Your task to perform on an android device: toggle improve location accuracy Image 0: 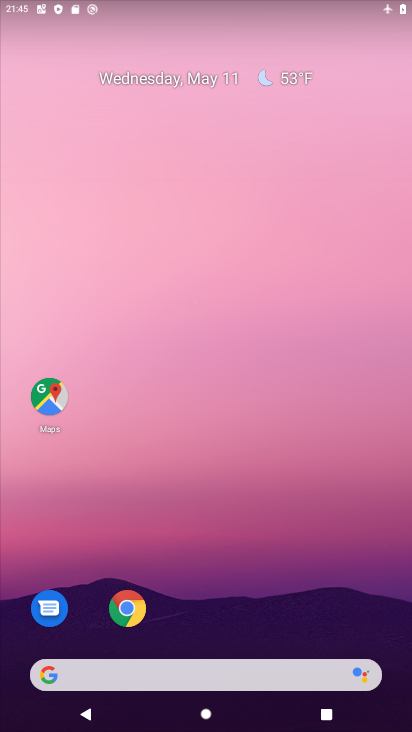
Step 0: drag from (287, 536) to (302, 110)
Your task to perform on an android device: toggle improve location accuracy Image 1: 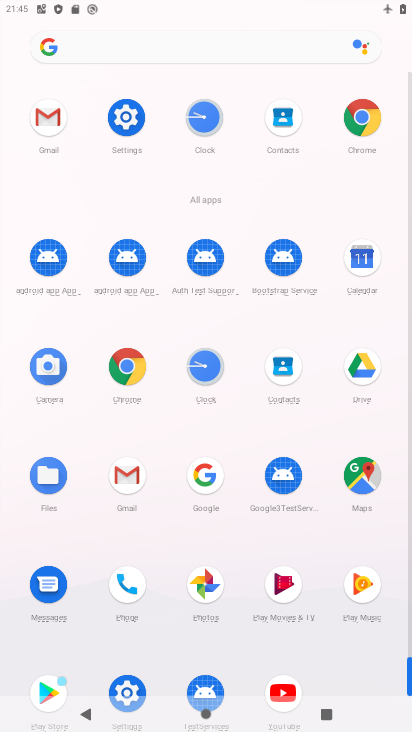
Step 1: click (122, 117)
Your task to perform on an android device: toggle improve location accuracy Image 2: 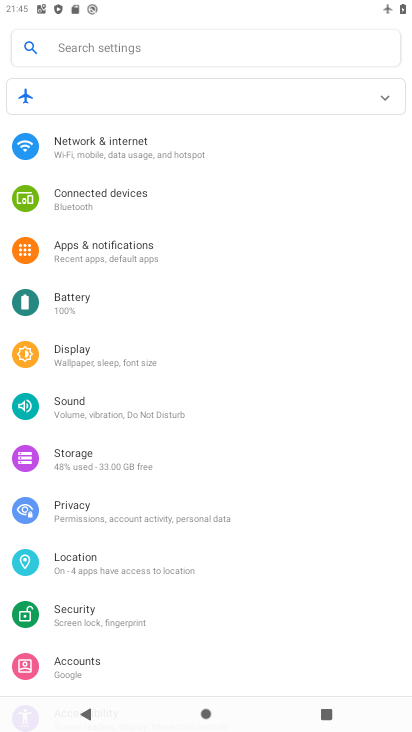
Step 2: click (90, 560)
Your task to perform on an android device: toggle improve location accuracy Image 3: 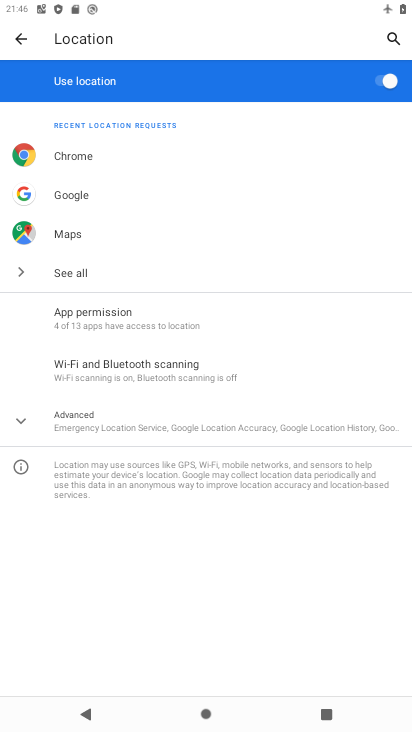
Step 3: click (17, 420)
Your task to perform on an android device: toggle improve location accuracy Image 4: 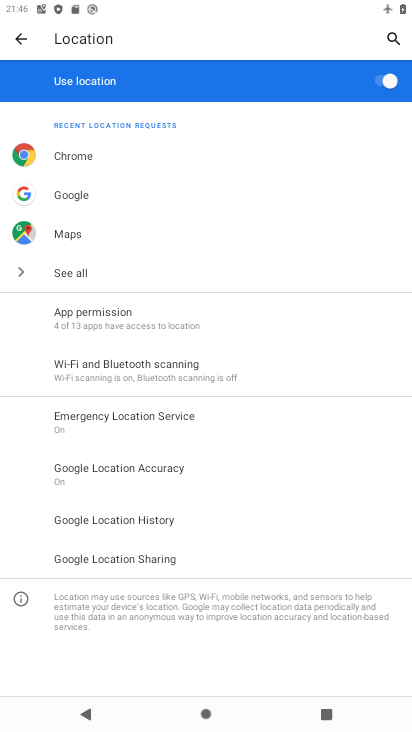
Step 4: click (119, 463)
Your task to perform on an android device: toggle improve location accuracy Image 5: 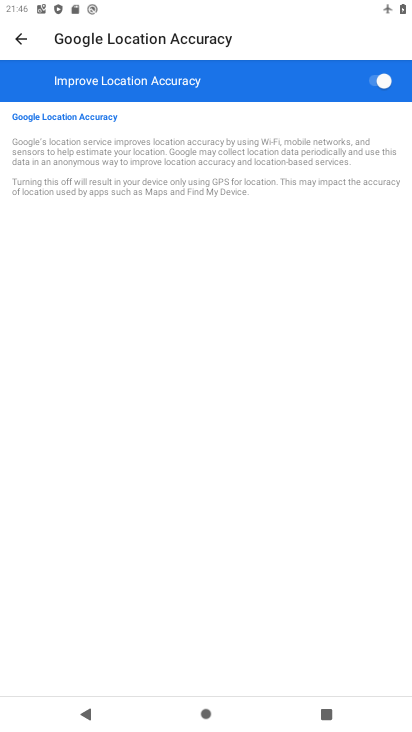
Step 5: click (379, 78)
Your task to perform on an android device: toggle improve location accuracy Image 6: 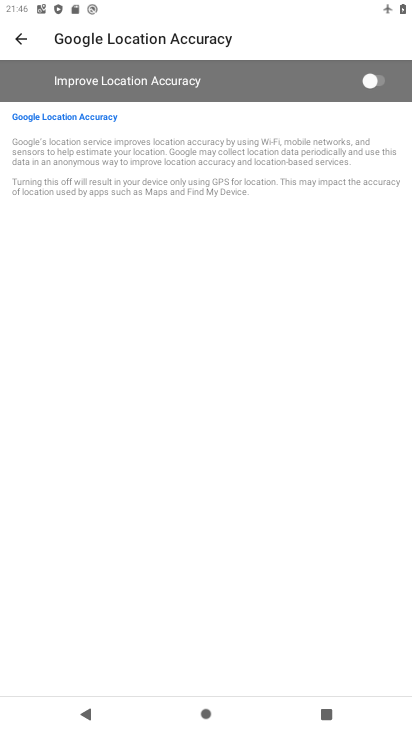
Step 6: task complete